Your task to perform on an android device: make emails show in primary in the gmail app Image 0: 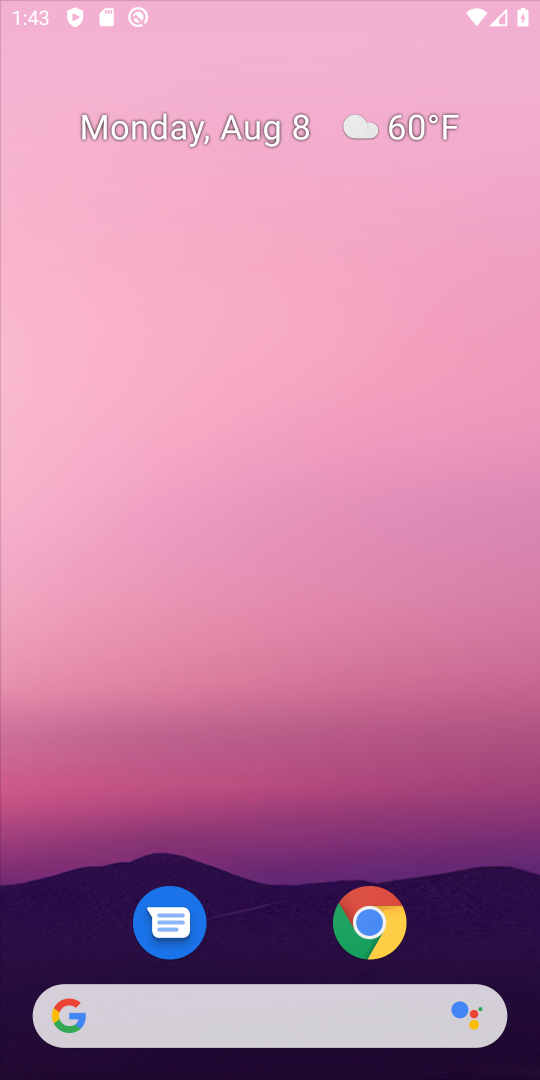
Step 0: press home button
Your task to perform on an android device: make emails show in primary in the gmail app Image 1: 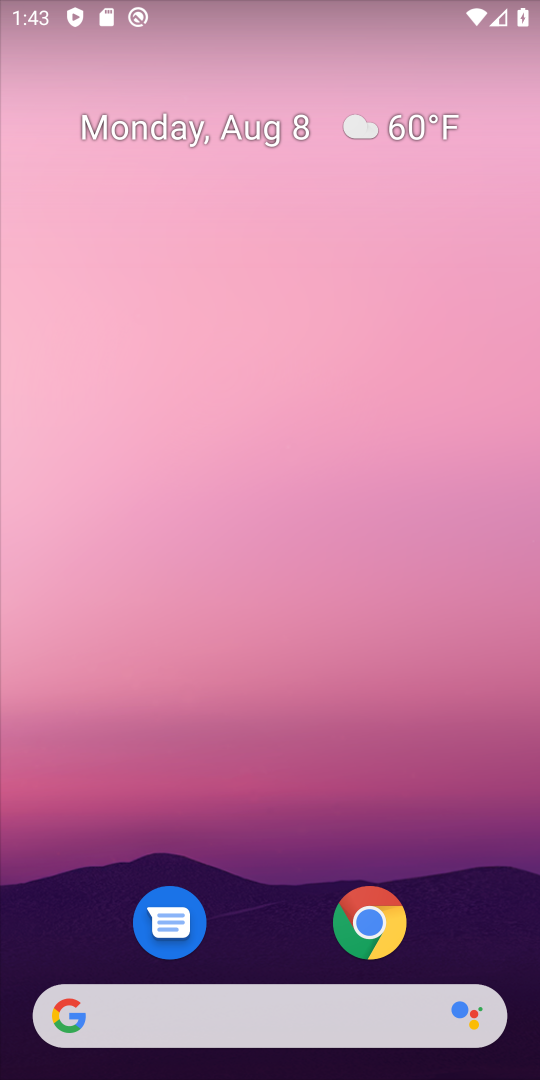
Step 1: drag from (470, 825) to (376, 26)
Your task to perform on an android device: make emails show in primary in the gmail app Image 2: 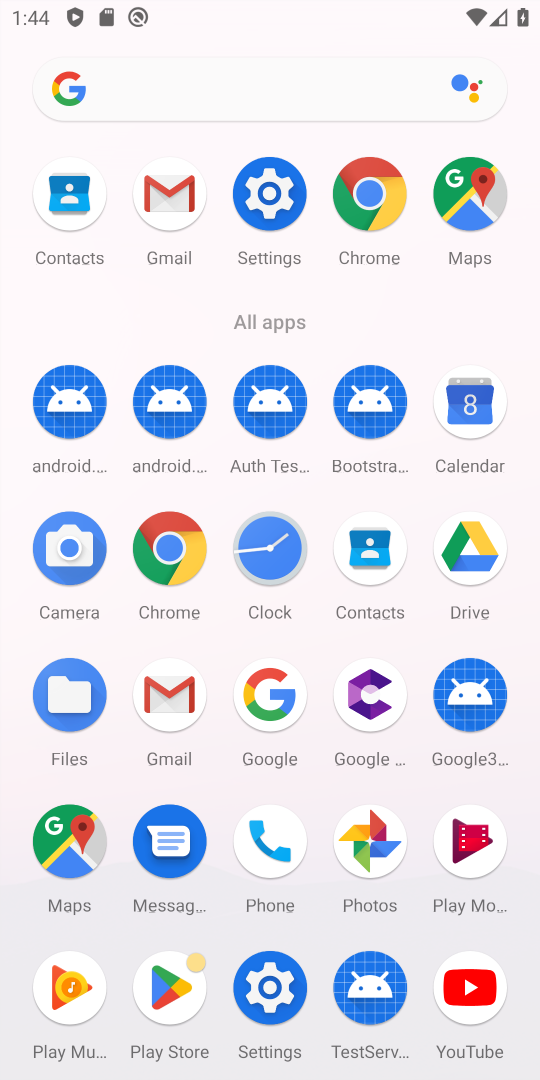
Step 2: click (170, 678)
Your task to perform on an android device: make emails show in primary in the gmail app Image 3: 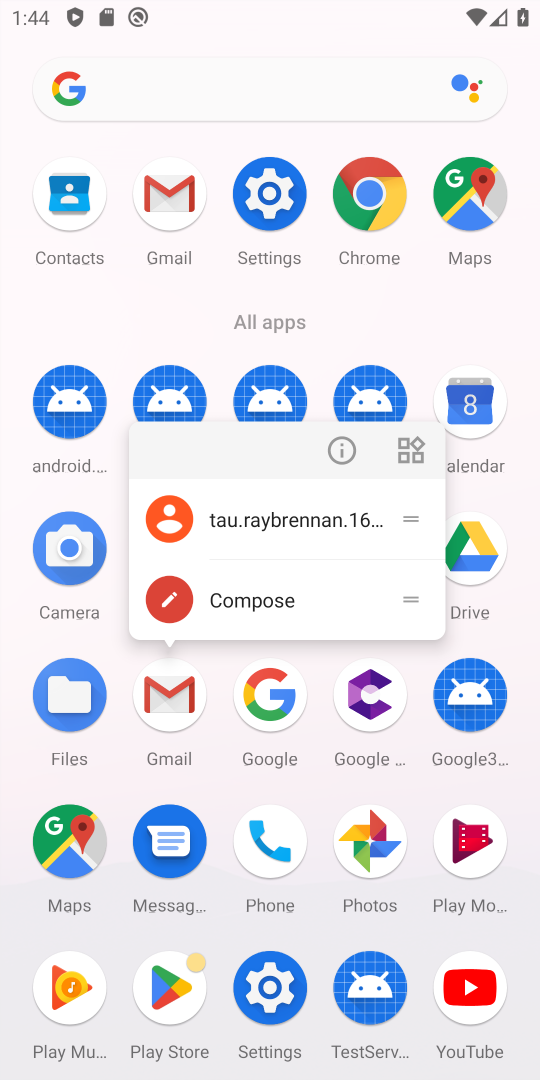
Step 3: click (174, 689)
Your task to perform on an android device: make emails show in primary in the gmail app Image 4: 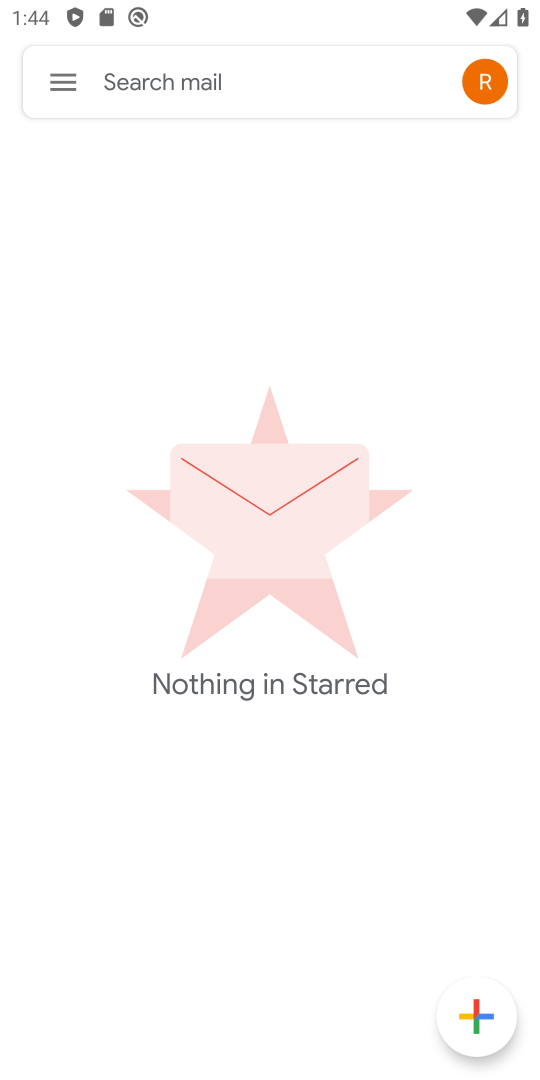
Step 4: click (91, 86)
Your task to perform on an android device: make emails show in primary in the gmail app Image 5: 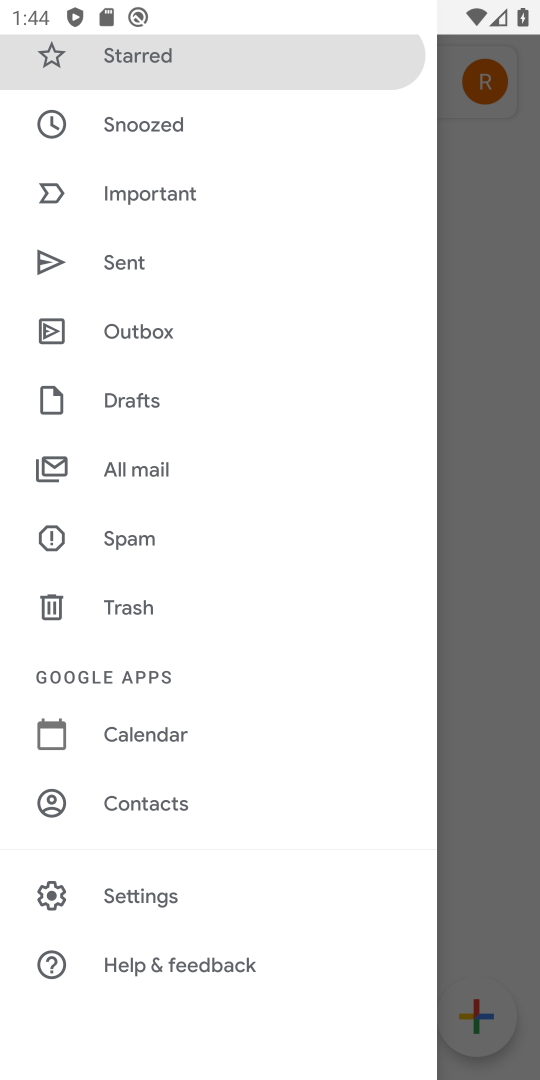
Step 5: click (161, 903)
Your task to perform on an android device: make emails show in primary in the gmail app Image 6: 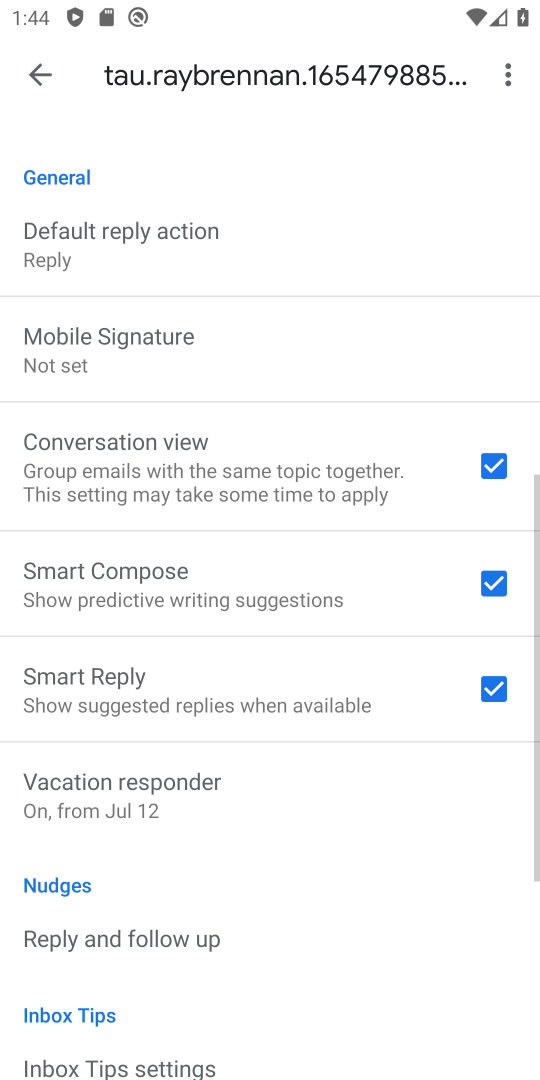
Step 6: drag from (250, 248) to (171, 889)
Your task to perform on an android device: make emails show in primary in the gmail app Image 7: 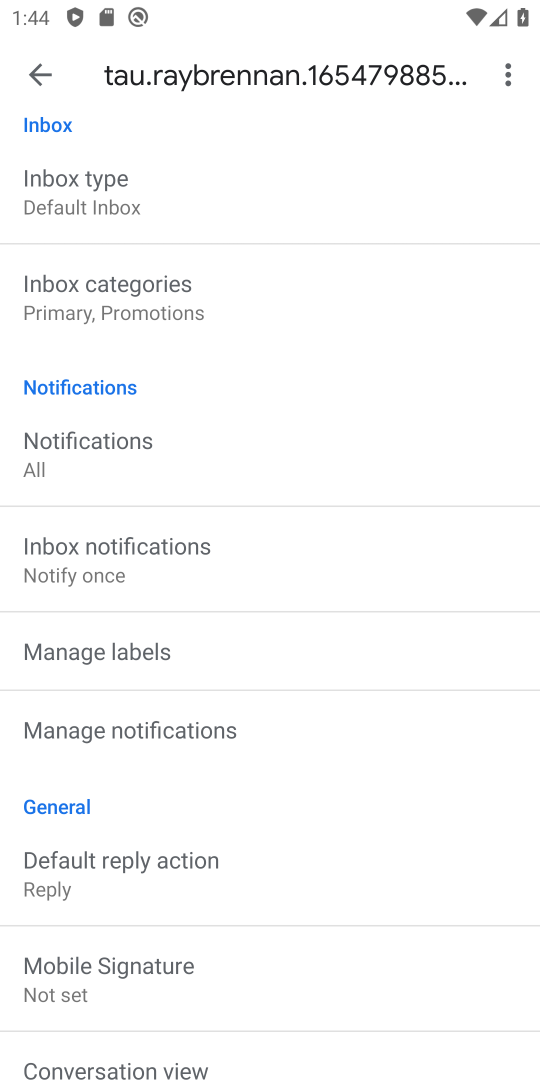
Step 7: click (116, 282)
Your task to perform on an android device: make emails show in primary in the gmail app Image 8: 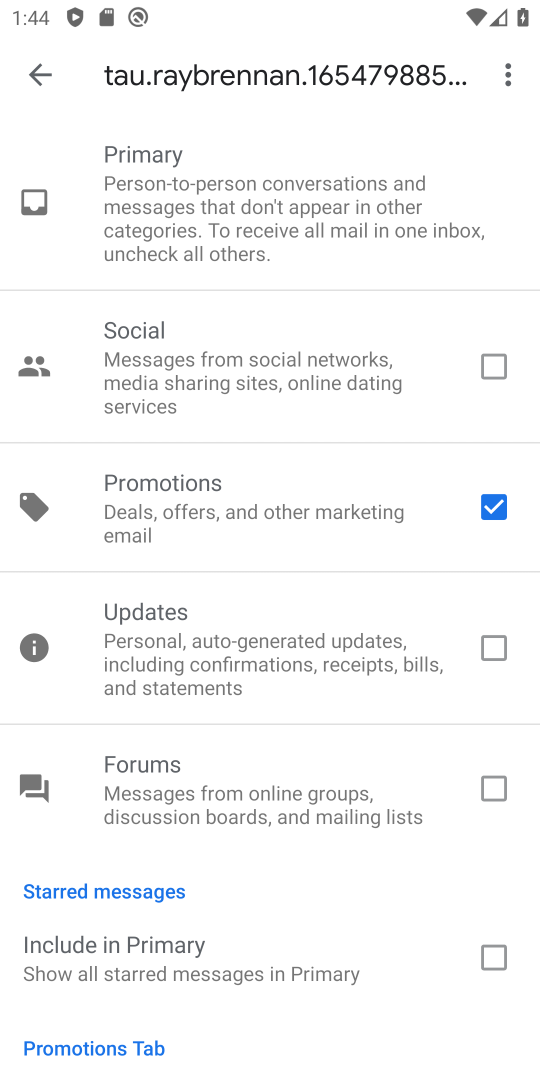
Step 8: task complete